Your task to perform on an android device: change notification settings in the gmail app Image 0: 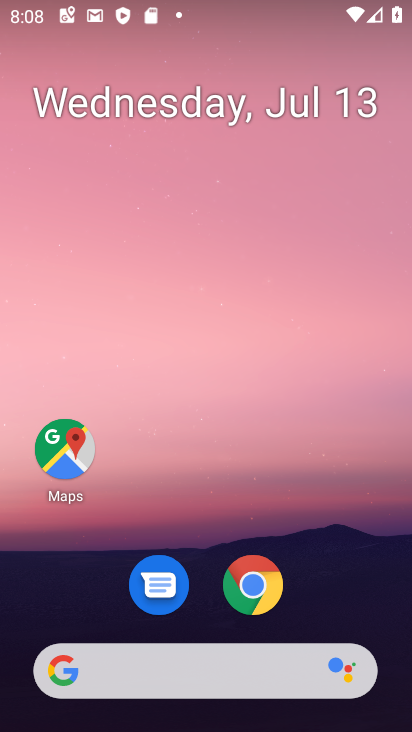
Step 0: drag from (270, 490) to (311, 22)
Your task to perform on an android device: change notification settings in the gmail app Image 1: 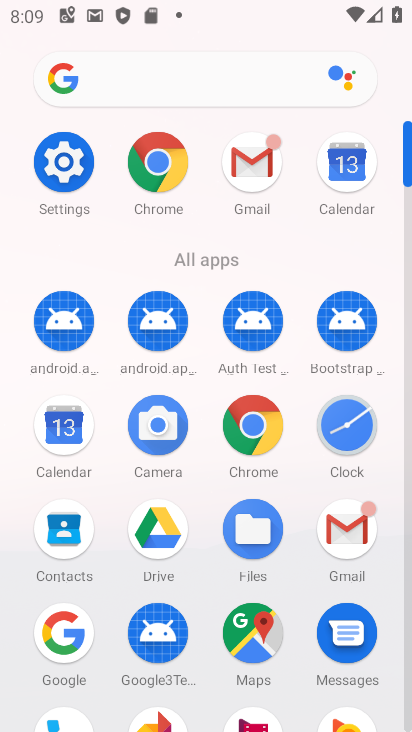
Step 1: click (247, 151)
Your task to perform on an android device: change notification settings in the gmail app Image 2: 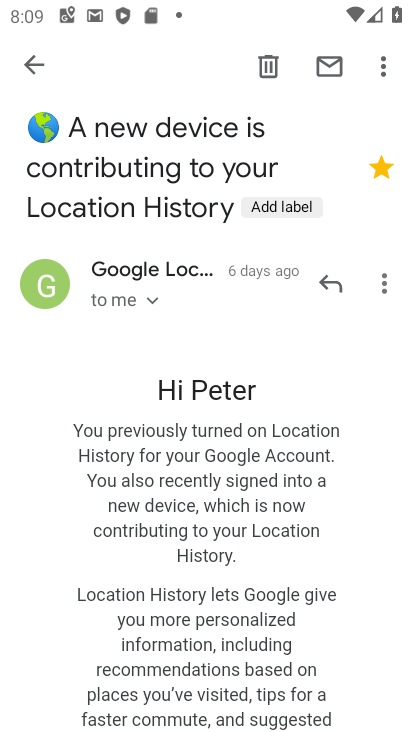
Step 2: click (40, 63)
Your task to perform on an android device: change notification settings in the gmail app Image 3: 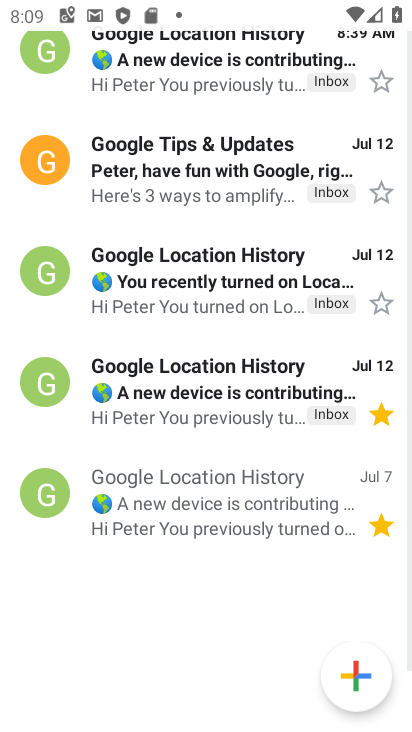
Step 3: drag from (224, 115) to (298, 553)
Your task to perform on an android device: change notification settings in the gmail app Image 4: 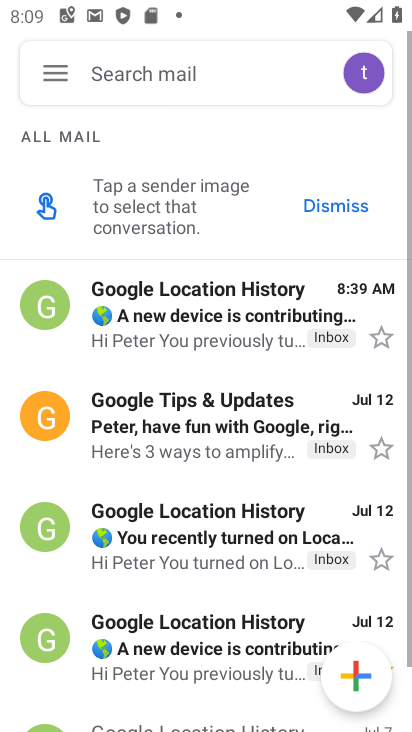
Step 4: click (48, 66)
Your task to perform on an android device: change notification settings in the gmail app Image 5: 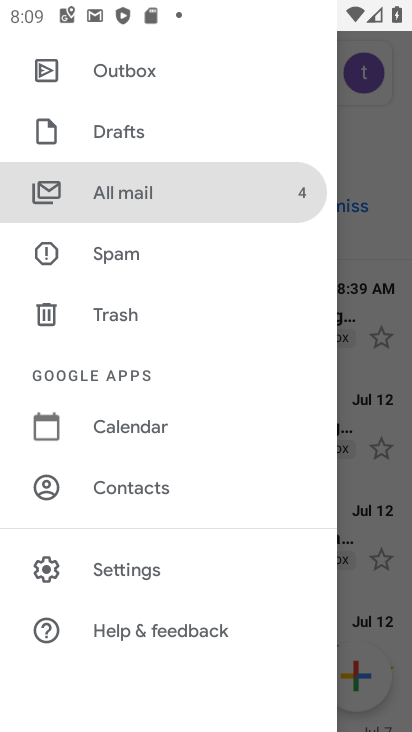
Step 5: click (146, 569)
Your task to perform on an android device: change notification settings in the gmail app Image 6: 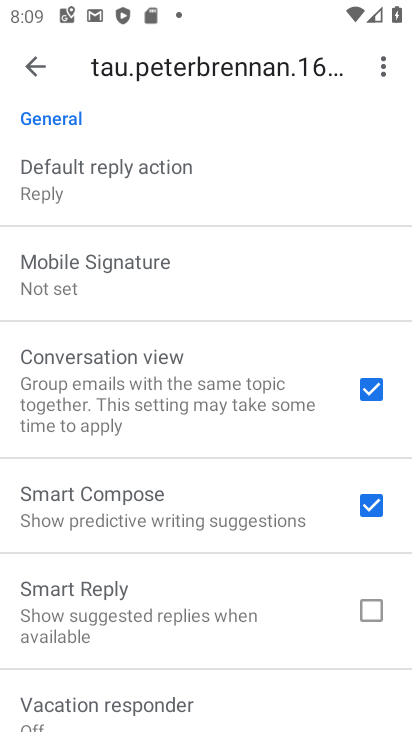
Step 6: drag from (186, 489) to (200, 152)
Your task to perform on an android device: change notification settings in the gmail app Image 7: 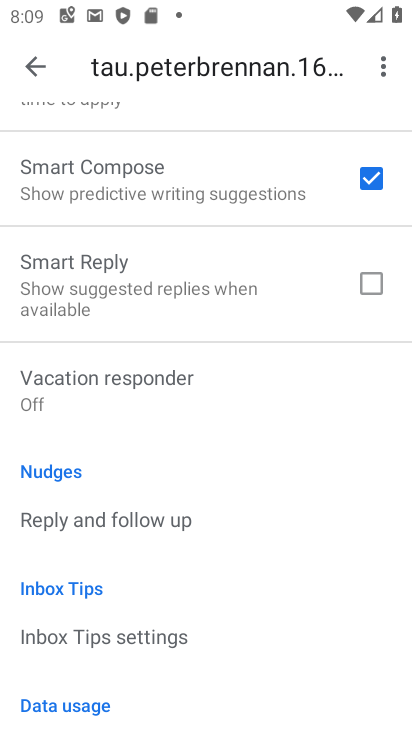
Step 7: drag from (196, 210) to (232, 658)
Your task to perform on an android device: change notification settings in the gmail app Image 8: 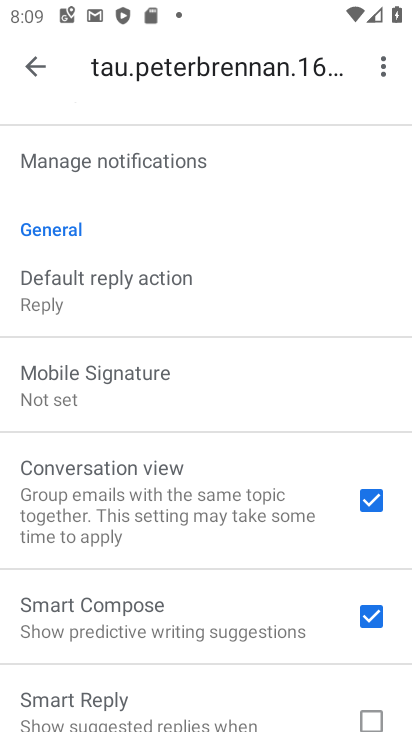
Step 8: drag from (217, 222) to (227, 412)
Your task to perform on an android device: change notification settings in the gmail app Image 9: 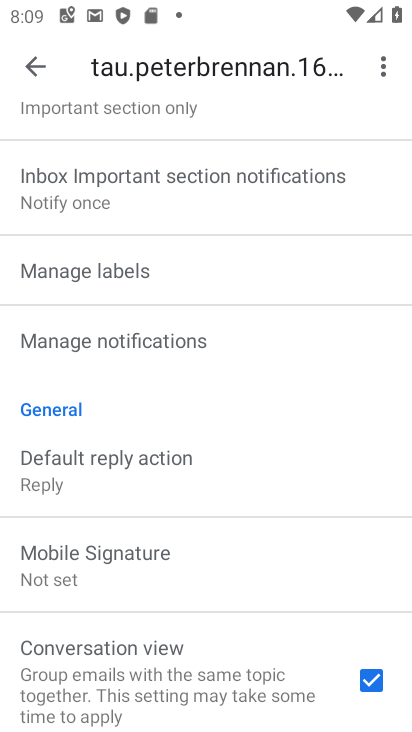
Step 9: click (174, 343)
Your task to perform on an android device: change notification settings in the gmail app Image 10: 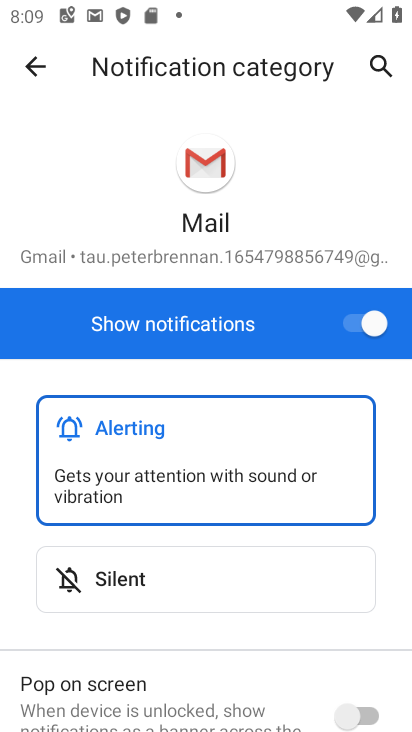
Step 10: click (368, 320)
Your task to perform on an android device: change notification settings in the gmail app Image 11: 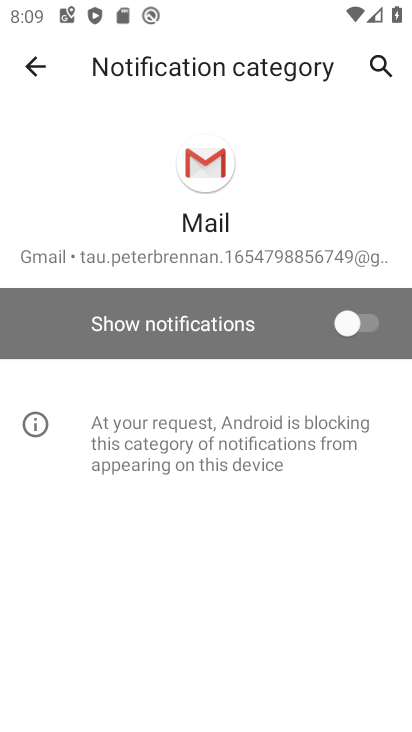
Step 11: task complete